Your task to perform on an android device: turn off picture-in-picture Image 0: 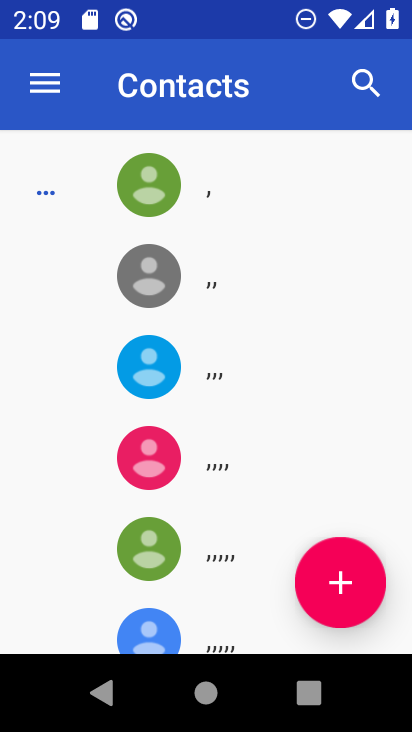
Step 0: press home button
Your task to perform on an android device: turn off picture-in-picture Image 1: 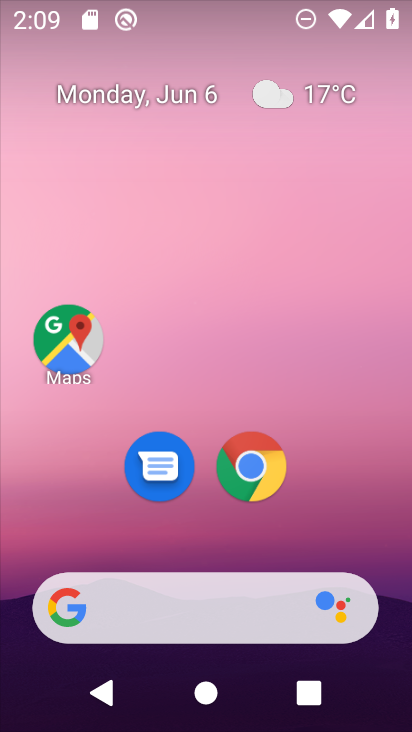
Step 1: click (265, 472)
Your task to perform on an android device: turn off picture-in-picture Image 2: 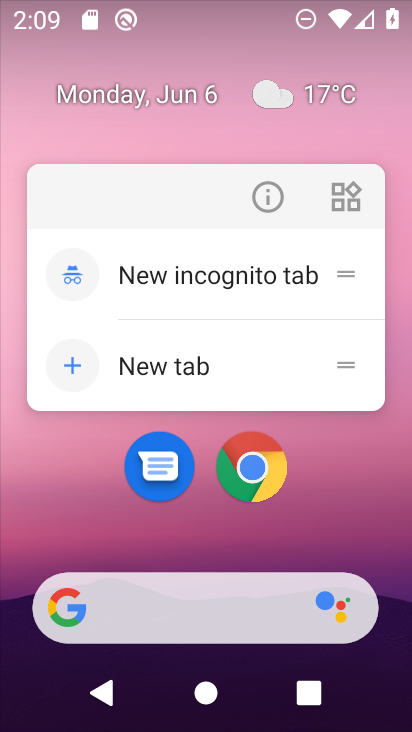
Step 2: click (270, 198)
Your task to perform on an android device: turn off picture-in-picture Image 3: 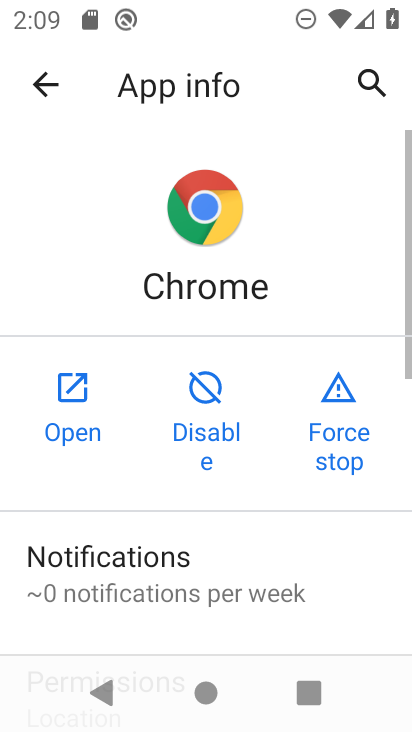
Step 3: drag from (284, 539) to (317, 4)
Your task to perform on an android device: turn off picture-in-picture Image 4: 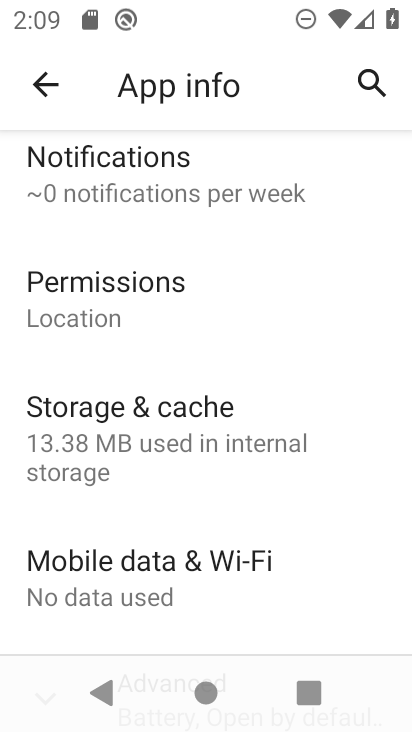
Step 4: drag from (221, 593) to (249, 166)
Your task to perform on an android device: turn off picture-in-picture Image 5: 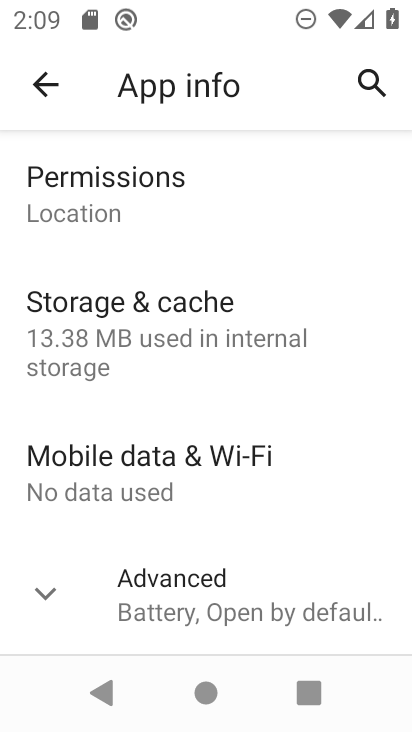
Step 5: click (48, 587)
Your task to perform on an android device: turn off picture-in-picture Image 6: 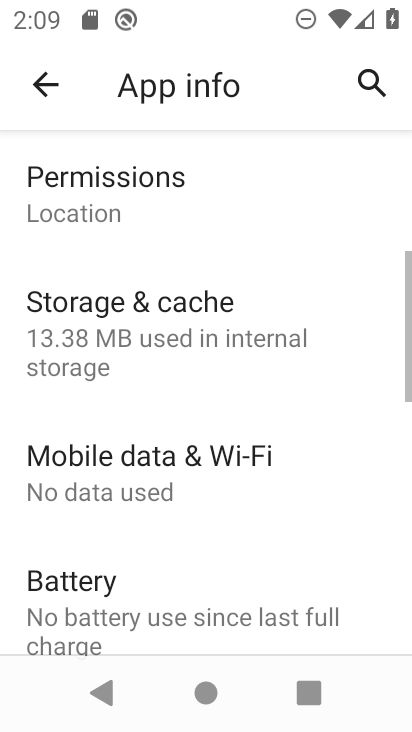
Step 6: drag from (263, 568) to (291, 132)
Your task to perform on an android device: turn off picture-in-picture Image 7: 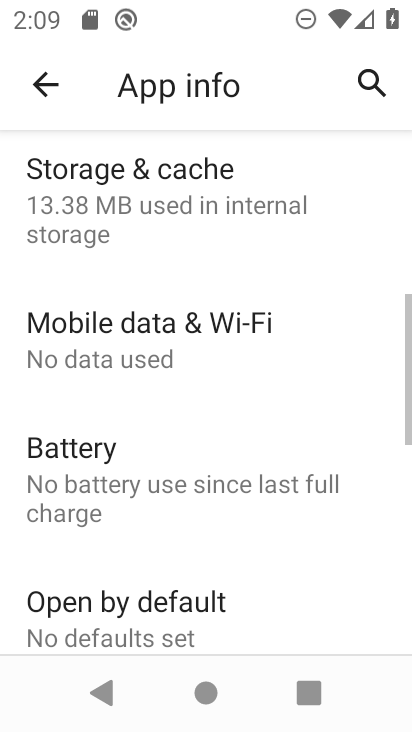
Step 7: drag from (251, 573) to (282, 144)
Your task to perform on an android device: turn off picture-in-picture Image 8: 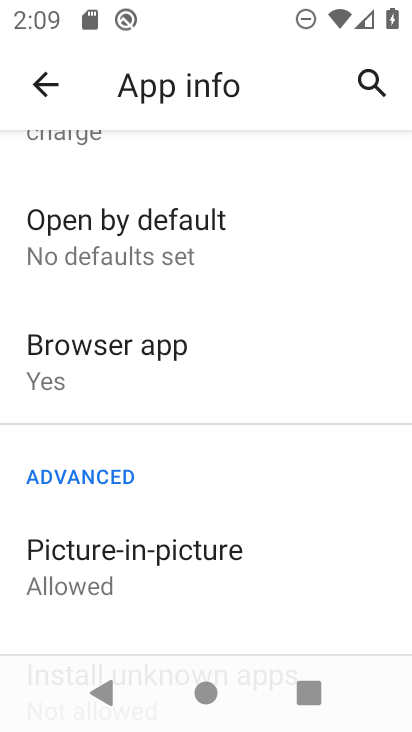
Step 8: click (120, 567)
Your task to perform on an android device: turn off picture-in-picture Image 9: 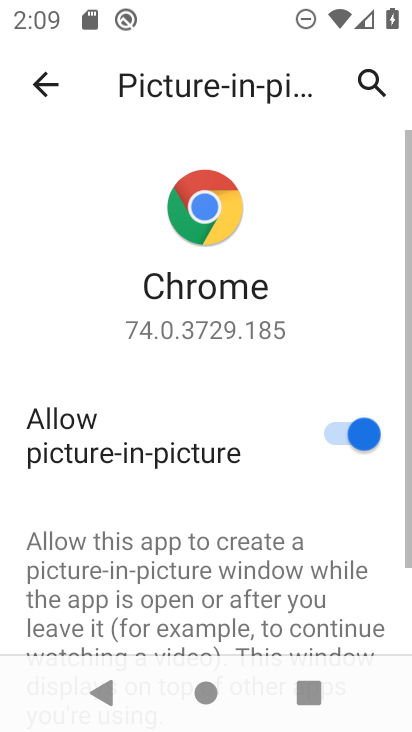
Step 9: click (332, 425)
Your task to perform on an android device: turn off picture-in-picture Image 10: 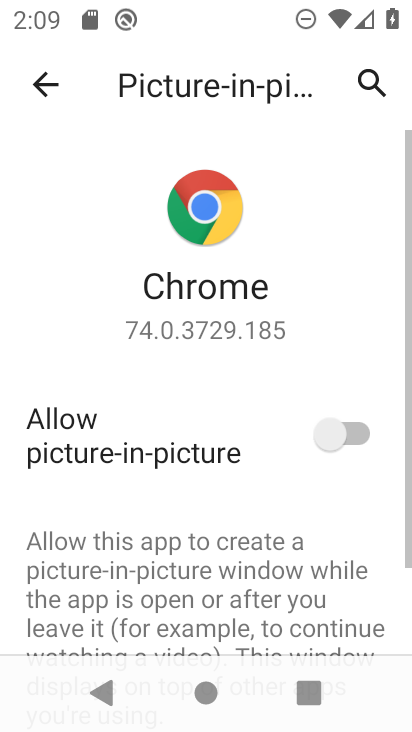
Step 10: task complete